Your task to perform on an android device: change keyboard looks Image 0: 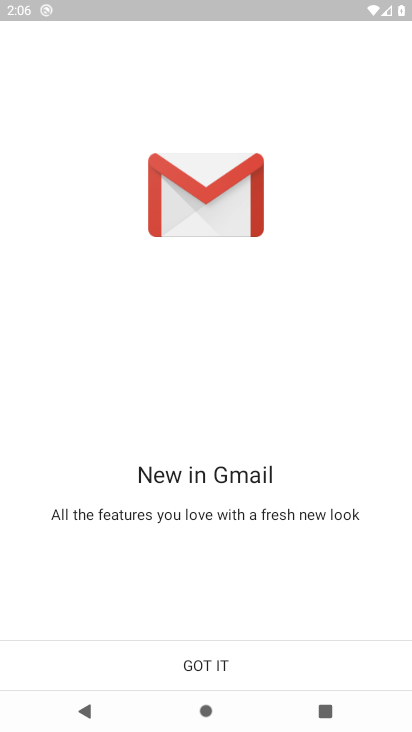
Step 0: click (262, 652)
Your task to perform on an android device: change keyboard looks Image 1: 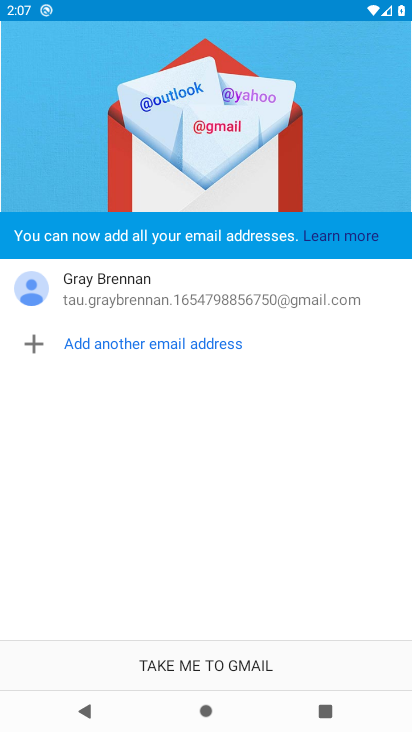
Step 1: click (230, 667)
Your task to perform on an android device: change keyboard looks Image 2: 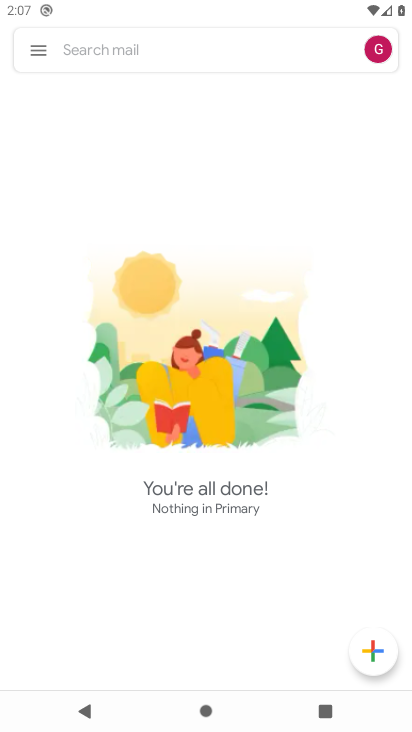
Step 2: press home button
Your task to perform on an android device: change keyboard looks Image 3: 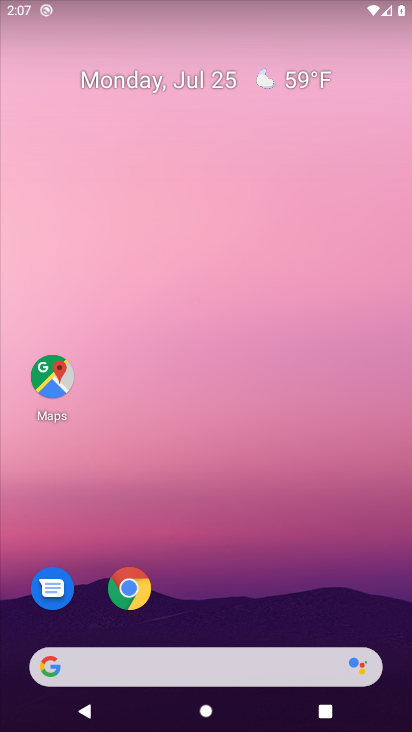
Step 3: drag from (350, 594) to (214, 92)
Your task to perform on an android device: change keyboard looks Image 4: 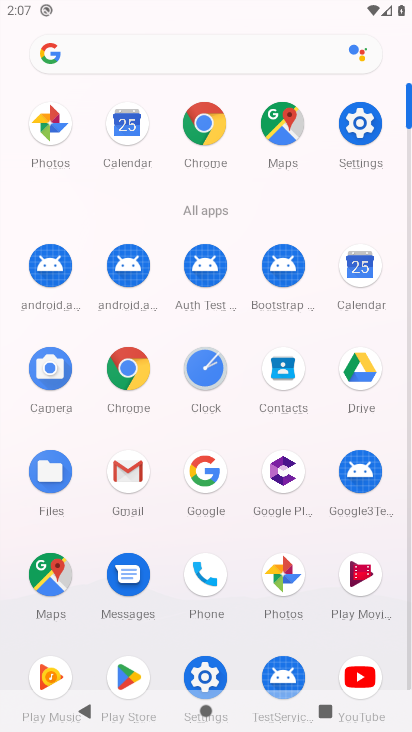
Step 4: drag from (307, 221) to (238, 2)
Your task to perform on an android device: change keyboard looks Image 5: 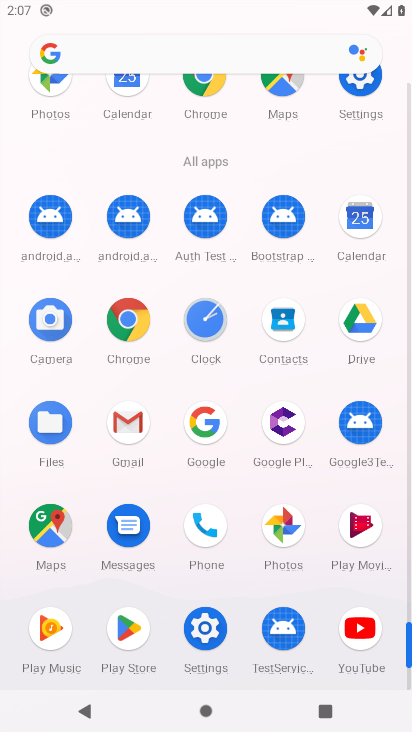
Step 5: click (205, 626)
Your task to perform on an android device: change keyboard looks Image 6: 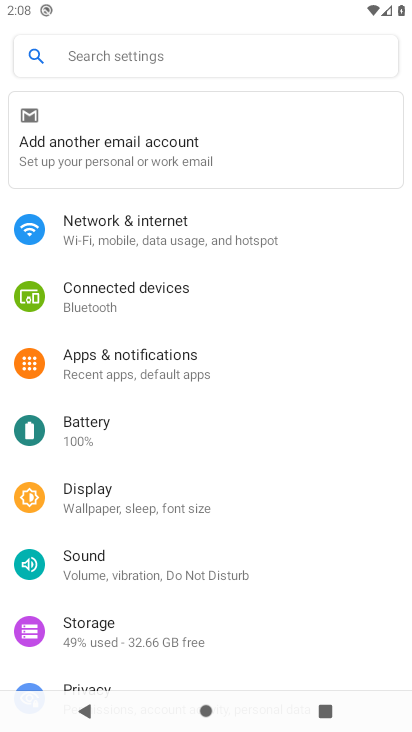
Step 6: drag from (278, 629) to (215, 216)
Your task to perform on an android device: change keyboard looks Image 7: 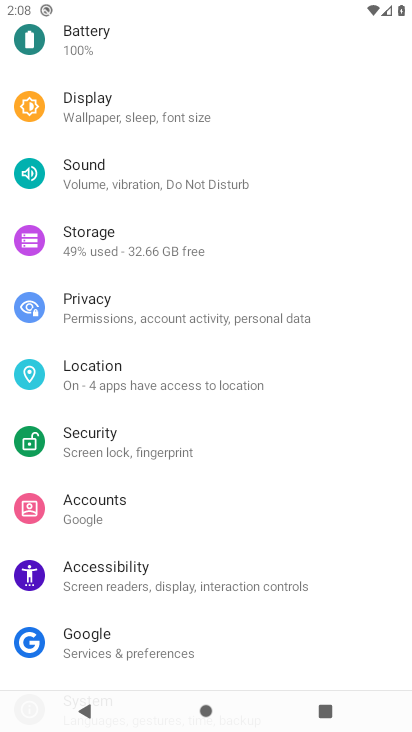
Step 7: drag from (229, 619) to (156, 41)
Your task to perform on an android device: change keyboard looks Image 8: 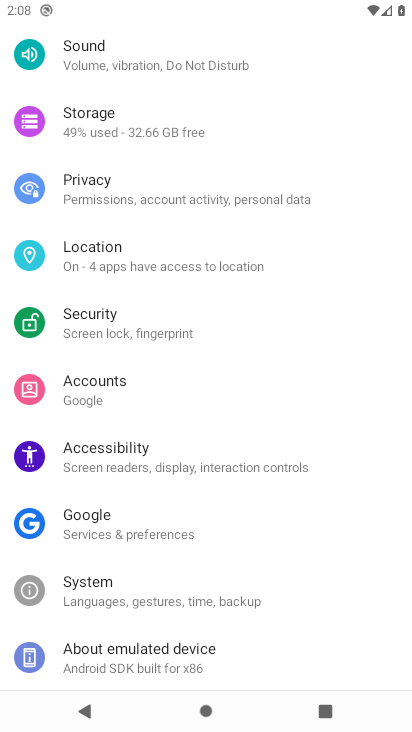
Step 8: click (175, 610)
Your task to perform on an android device: change keyboard looks Image 9: 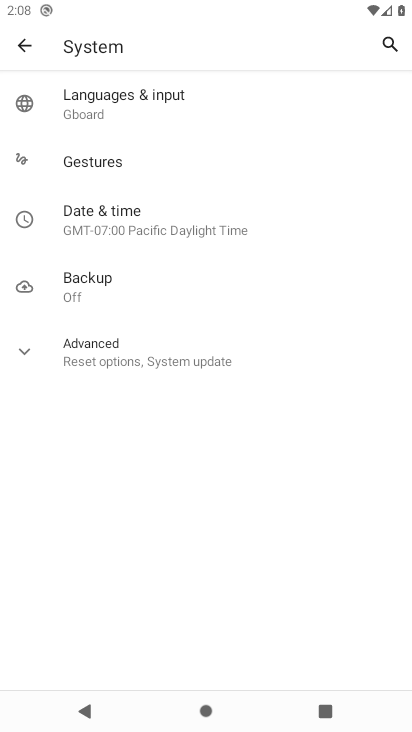
Step 9: click (100, 108)
Your task to perform on an android device: change keyboard looks Image 10: 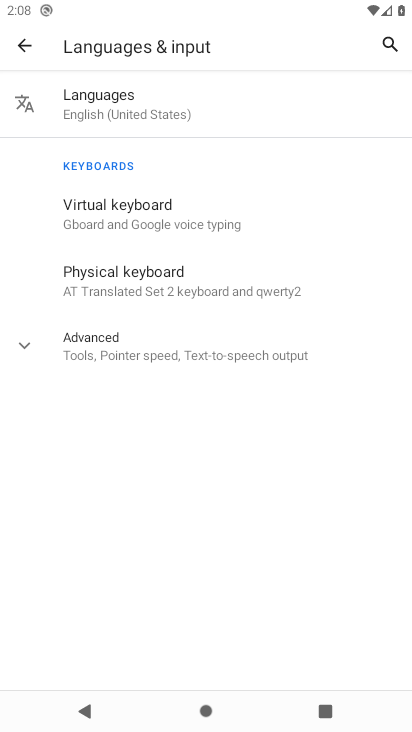
Step 10: click (143, 215)
Your task to perform on an android device: change keyboard looks Image 11: 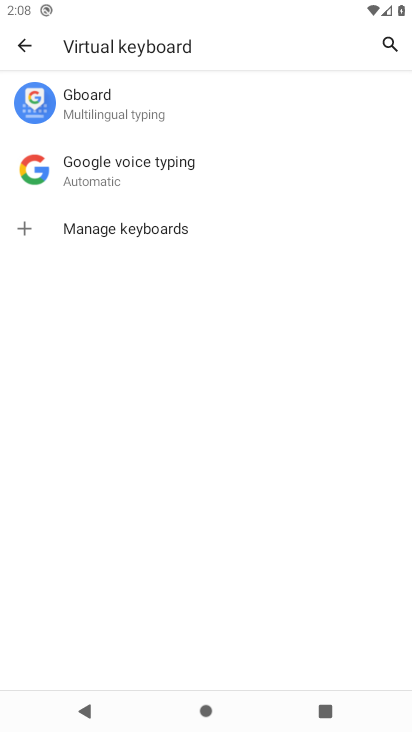
Step 11: click (122, 92)
Your task to perform on an android device: change keyboard looks Image 12: 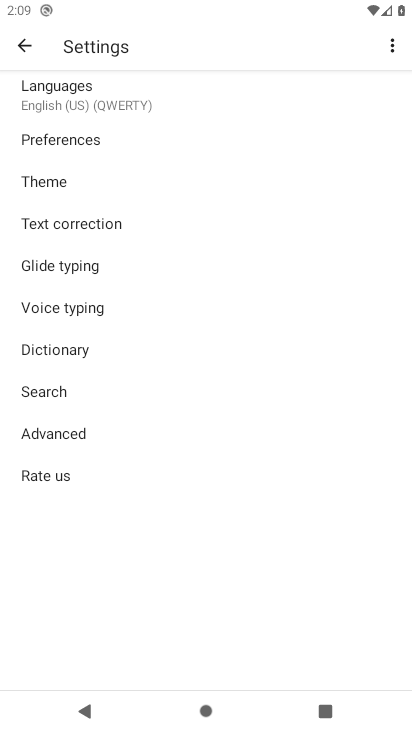
Step 12: click (68, 182)
Your task to perform on an android device: change keyboard looks Image 13: 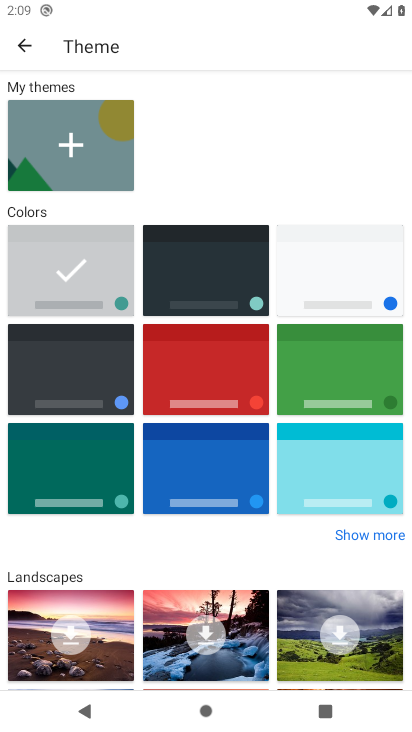
Step 13: click (201, 273)
Your task to perform on an android device: change keyboard looks Image 14: 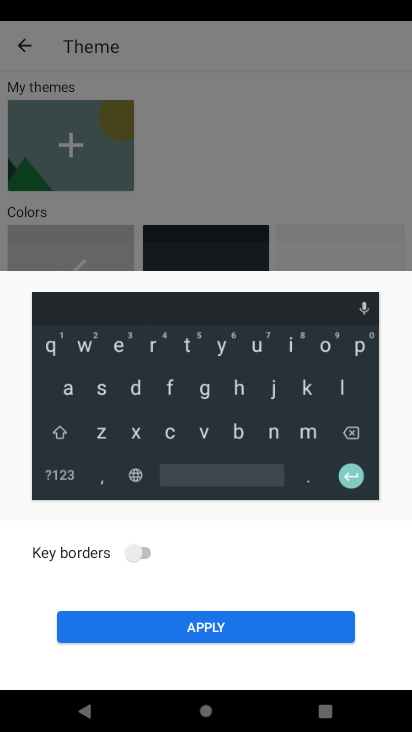
Step 14: click (166, 621)
Your task to perform on an android device: change keyboard looks Image 15: 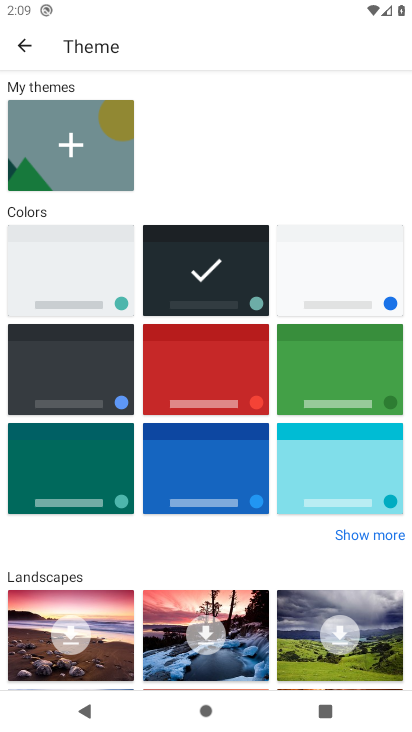
Step 15: task complete